Your task to perform on an android device: Is it going to rain this weekend? Image 0: 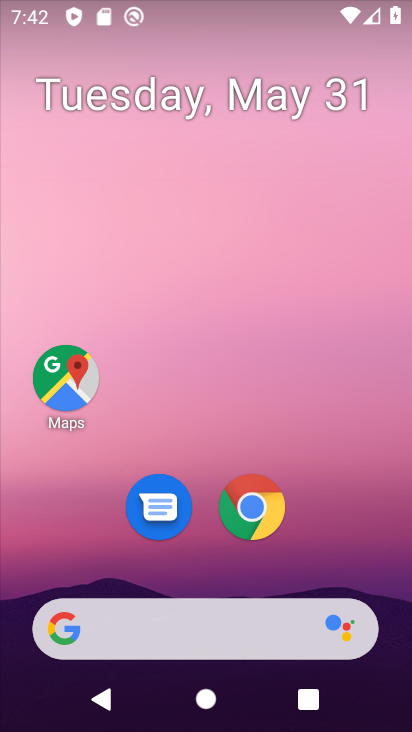
Step 0: click (392, 201)
Your task to perform on an android device: Is it going to rain this weekend? Image 1: 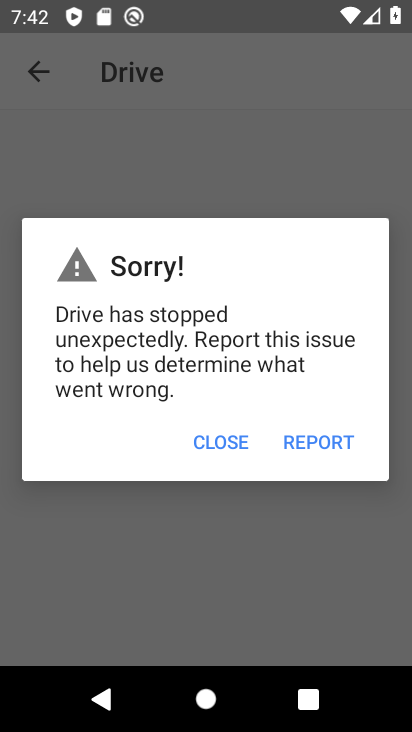
Step 1: press home button
Your task to perform on an android device: Is it going to rain this weekend? Image 2: 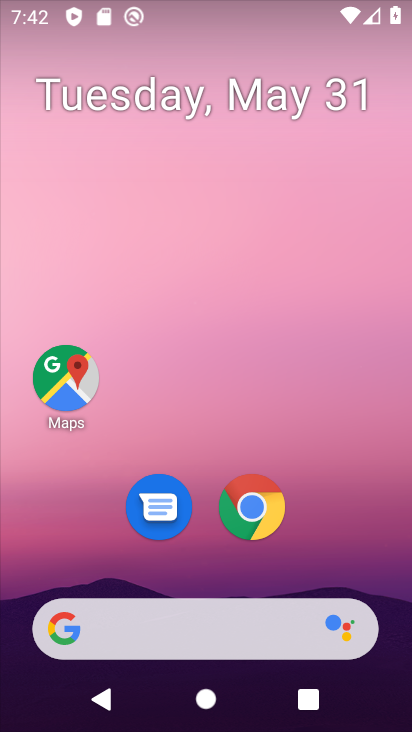
Step 2: drag from (318, 528) to (367, 96)
Your task to perform on an android device: Is it going to rain this weekend? Image 3: 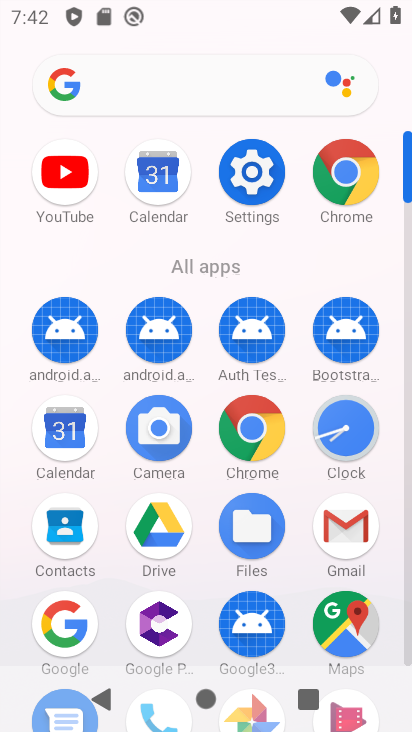
Step 3: click (338, 173)
Your task to perform on an android device: Is it going to rain this weekend? Image 4: 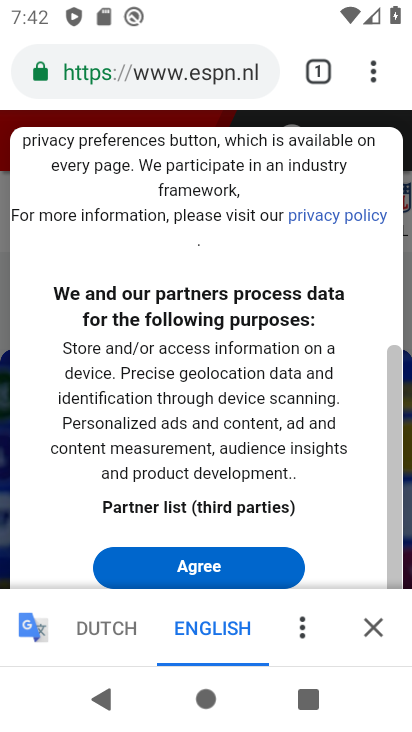
Step 4: click (243, 77)
Your task to perform on an android device: Is it going to rain this weekend? Image 5: 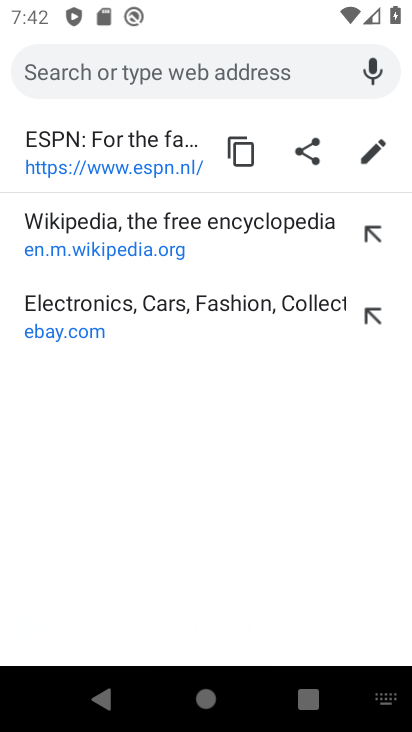
Step 5: type "weather"
Your task to perform on an android device: Is it going to rain this weekend? Image 6: 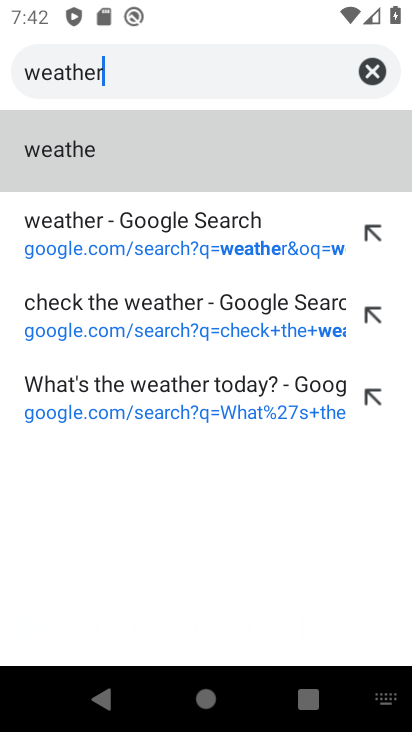
Step 6: type ""
Your task to perform on an android device: Is it going to rain this weekend? Image 7: 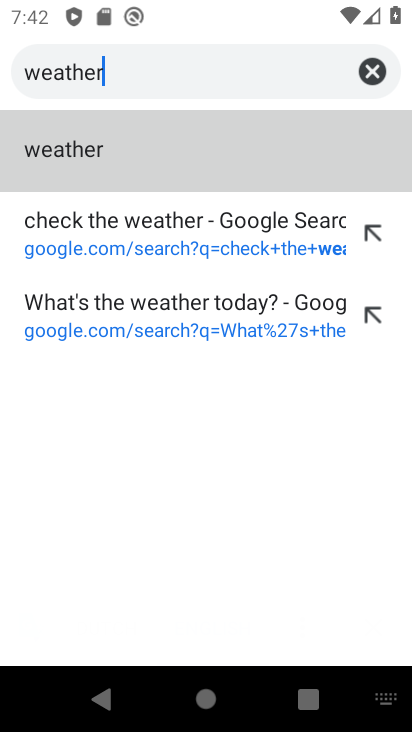
Step 7: click (85, 142)
Your task to perform on an android device: Is it going to rain this weekend? Image 8: 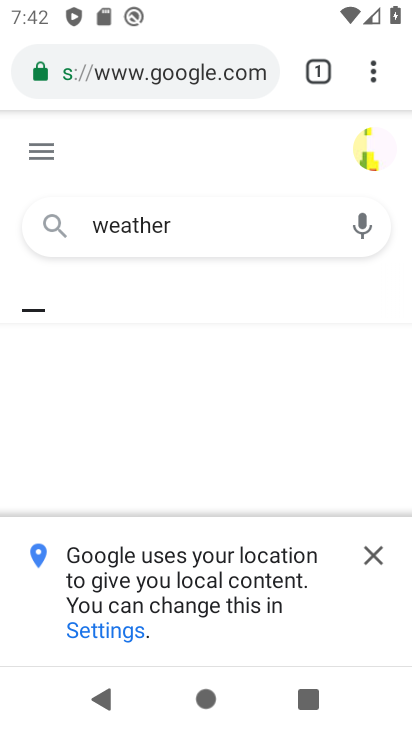
Step 8: click (389, 549)
Your task to perform on an android device: Is it going to rain this weekend? Image 9: 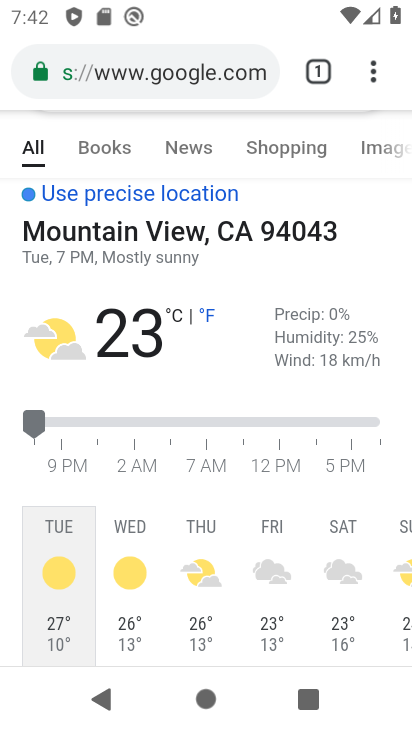
Step 9: drag from (300, 485) to (310, 246)
Your task to perform on an android device: Is it going to rain this weekend? Image 10: 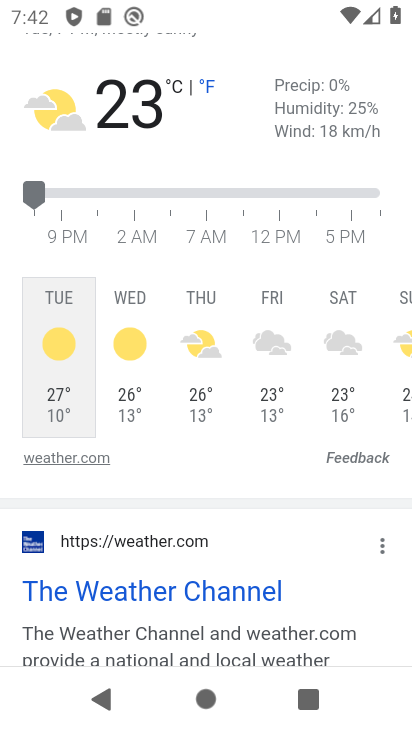
Step 10: click (332, 347)
Your task to perform on an android device: Is it going to rain this weekend? Image 11: 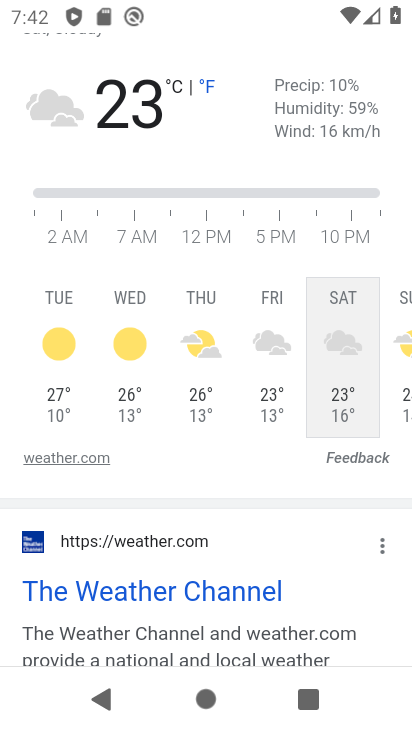
Step 11: task complete